Your task to perform on an android device: Go to Google maps Image 0: 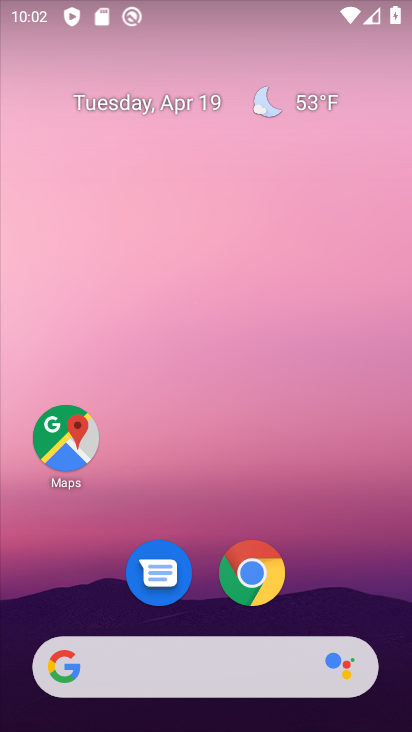
Step 0: drag from (207, 726) to (198, 14)
Your task to perform on an android device: Go to Google maps Image 1: 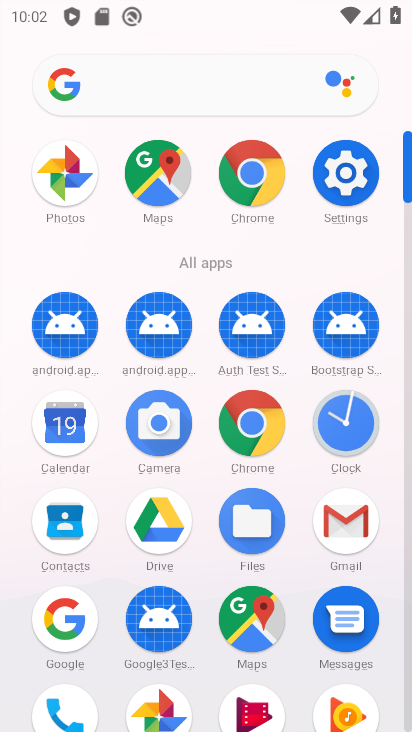
Step 1: click (156, 176)
Your task to perform on an android device: Go to Google maps Image 2: 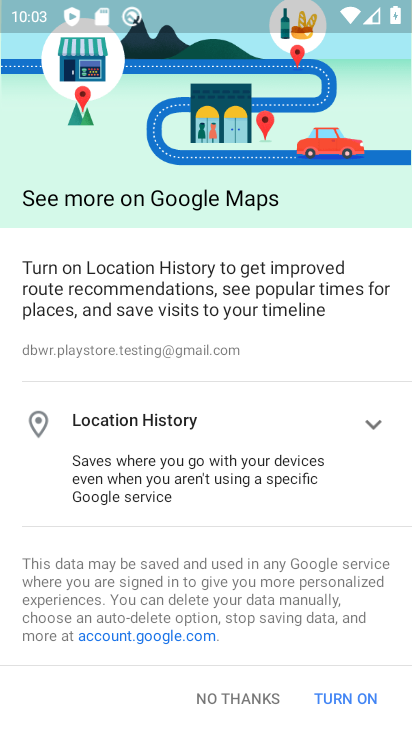
Step 2: task complete